Your task to perform on an android device: find which apps use the phone's location Image 0: 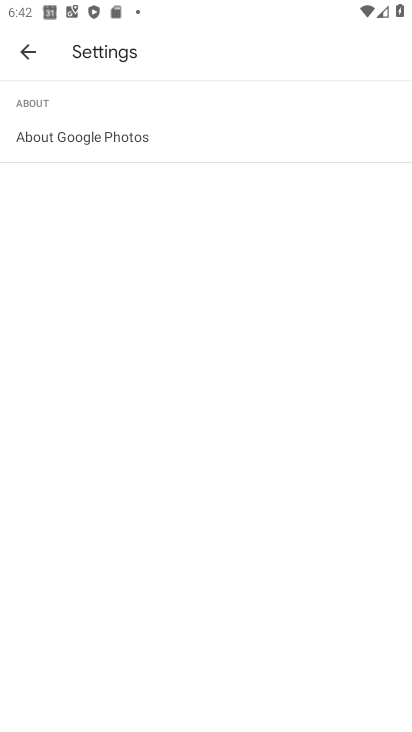
Step 0: press home button
Your task to perform on an android device: find which apps use the phone's location Image 1: 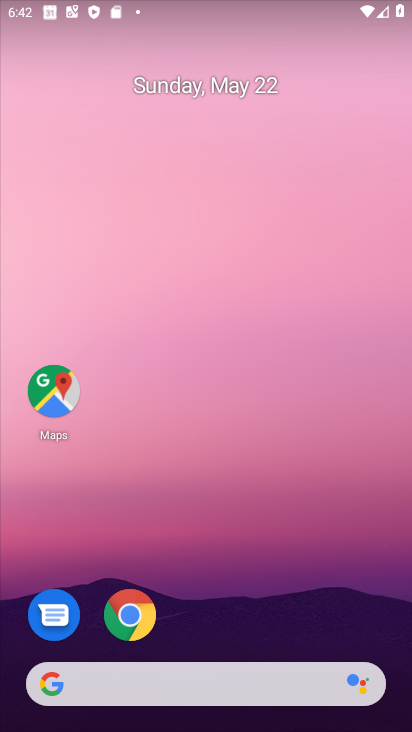
Step 1: drag from (248, 536) to (147, 10)
Your task to perform on an android device: find which apps use the phone's location Image 2: 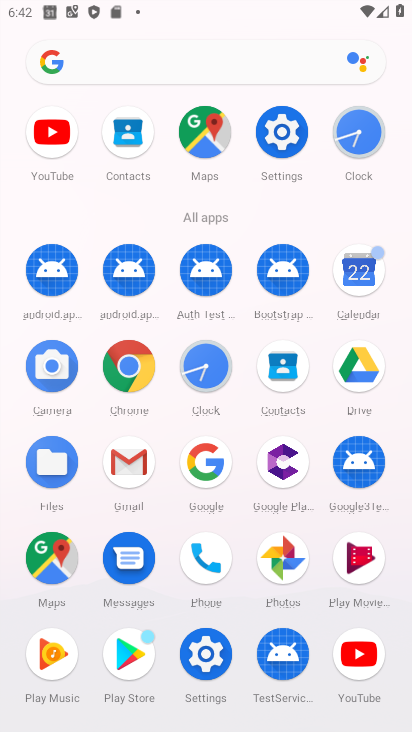
Step 2: click (283, 129)
Your task to perform on an android device: find which apps use the phone's location Image 3: 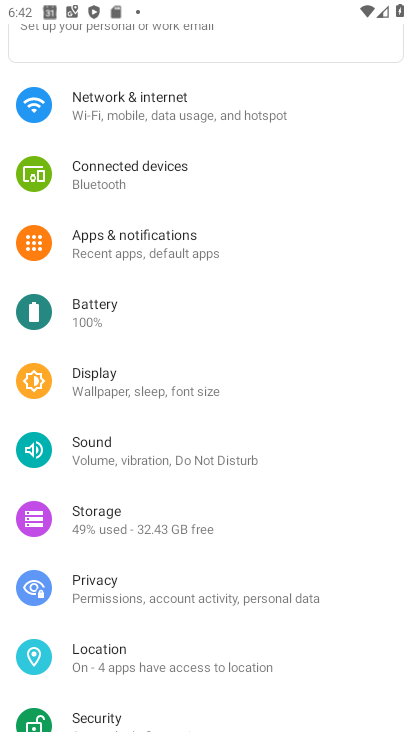
Step 3: click (91, 645)
Your task to perform on an android device: find which apps use the phone's location Image 4: 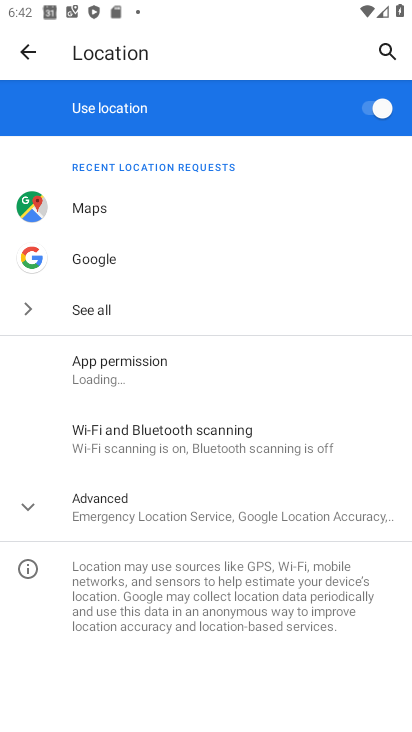
Step 4: click (97, 310)
Your task to perform on an android device: find which apps use the phone's location Image 5: 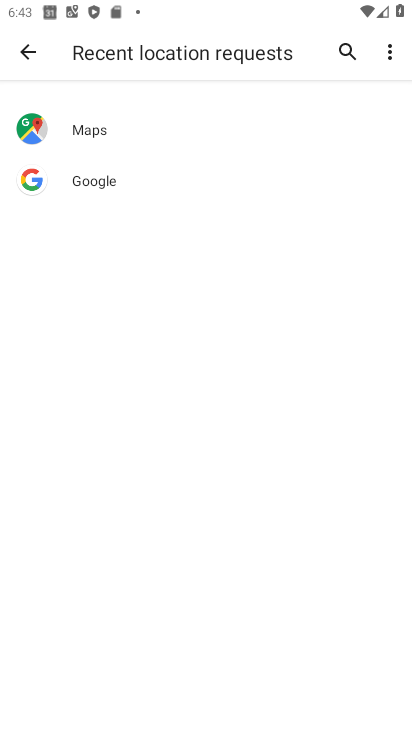
Step 5: task complete